Your task to perform on an android device: Go to Reddit.com Image 0: 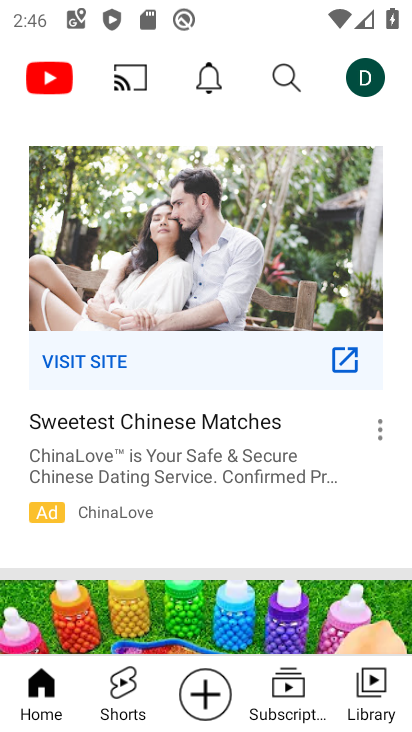
Step 0: press home button
Your task to perform on an android device: Go to Reddit.com Image 1: 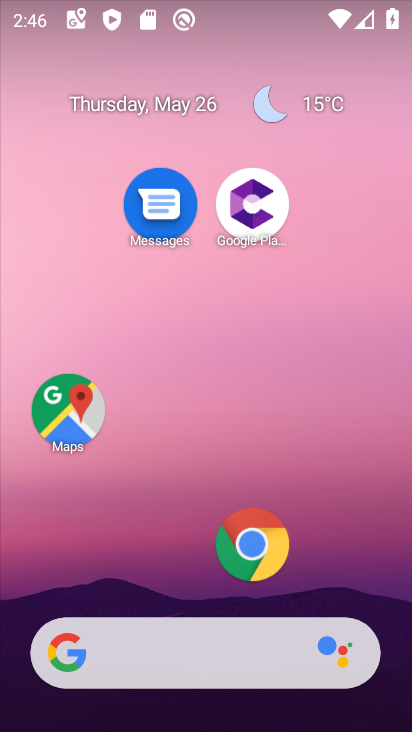
Step 1: click (210, 649)
Your task to perform on an android device: Go to Reddit.com Image 2: 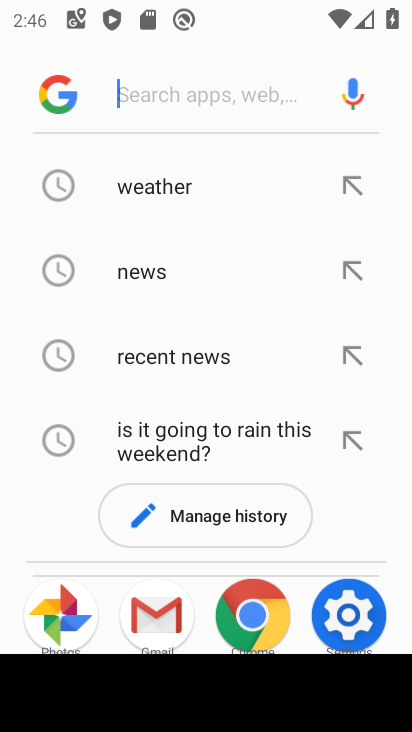
Step 2: type "reddit"
Your task to perform on an android device: Go to Reddit.com Image 3: 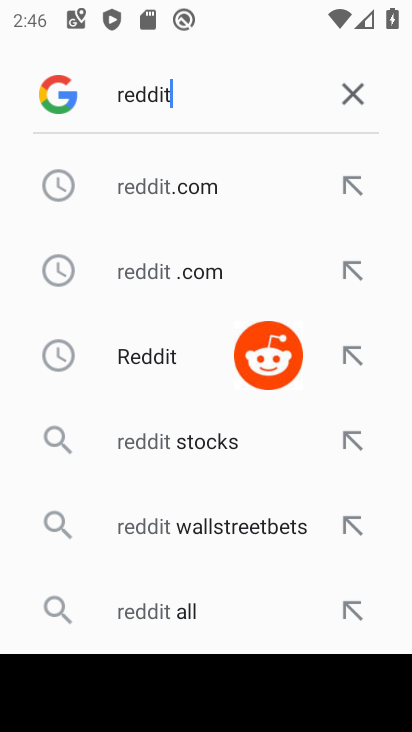
Step 3: click (155, 375)
Your task to perform on an android device: Go to Reddit.com Image 4: 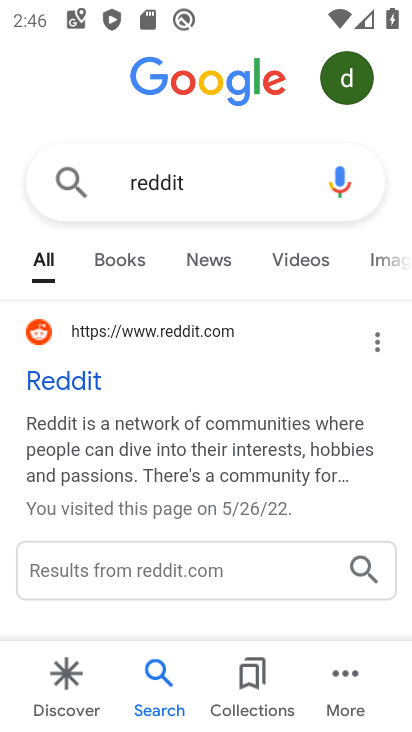
Step 4: click (57, 393)
Your task to perform on an android device: Go to Reddit.com Image 5: 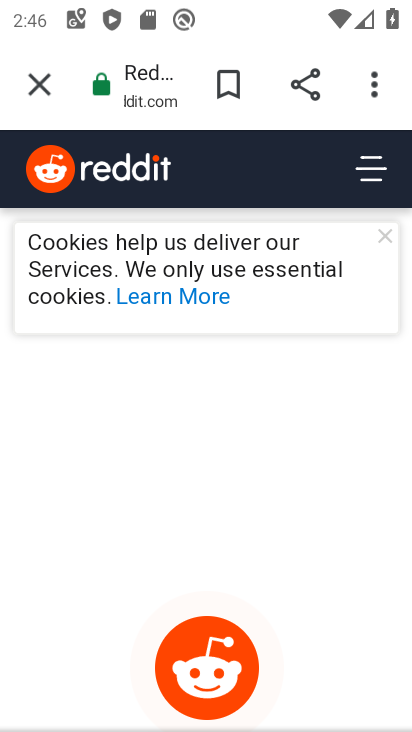
Step 5: task complete